Your task to perform on an android device: open app "Adobe Acrobat Reader" Image 0: 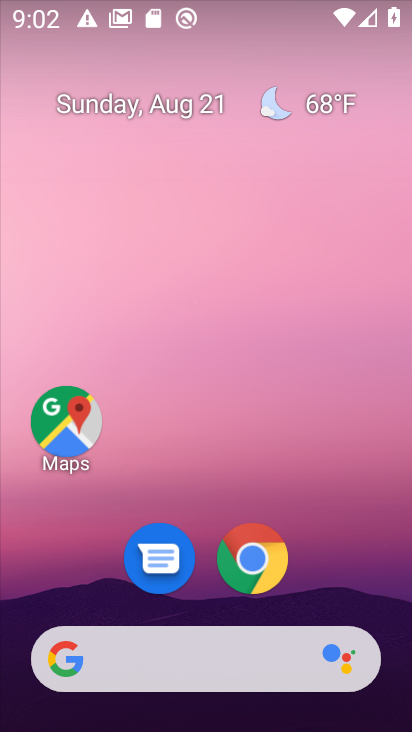
Step 0: drag from (145, 668) to (223, 78)
Your task to perform on an android device: open app "Adobe Acrobat Reader" Image 1: 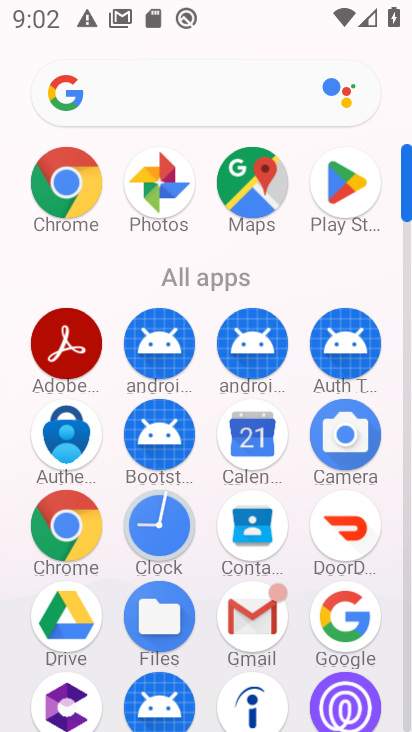
Step 1: click (328, 176)
Your task to perform on an android device: open app "Adobe Acrobat Reader" Image 2: 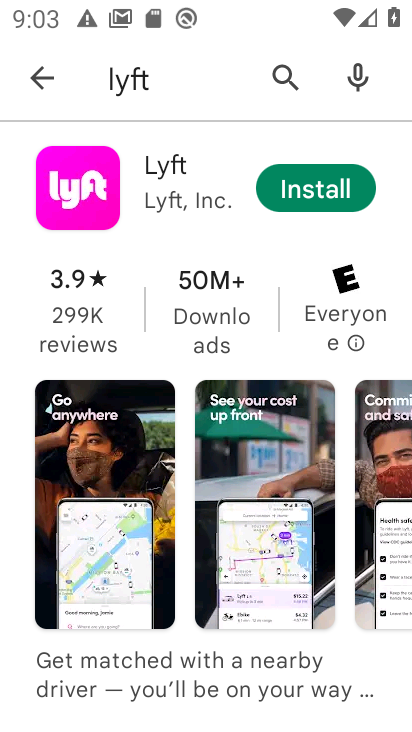
Step 2: click (290, 88)
Your task to perform on an android device: open app "Adobe Acrobat Reader" Image 3: 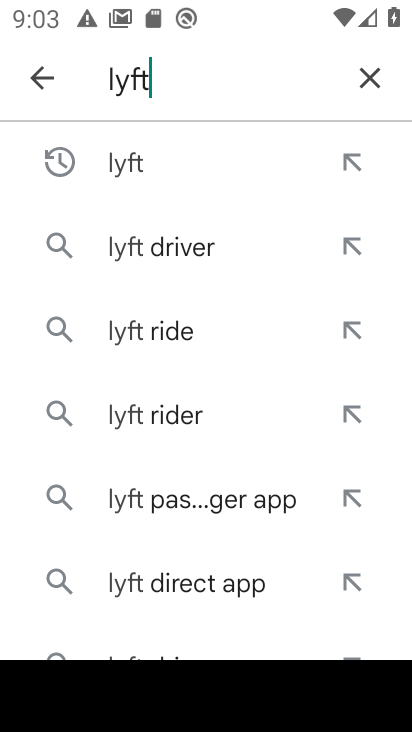
Step 3: click (357, 83)
Your task to perform on an android device: open app "Adobe Acrobat Reader" Image 4: 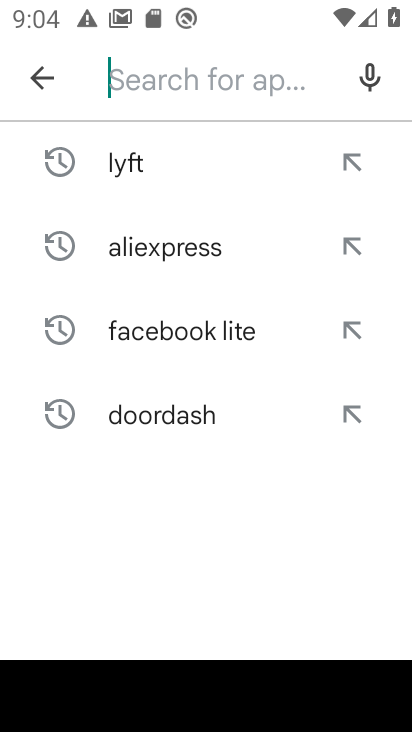
Step 4: type "adobe acrobat"
Your task to perform on an android device: open app "Adobe Acrobat Reader" Image 5: 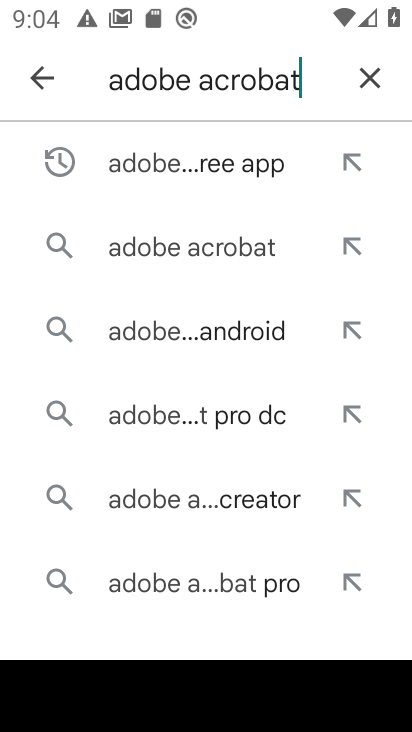
Step 5: click (182, 177)
Your task to perform on an android device: open app "Adobe Acrobat Reader" Image 6: 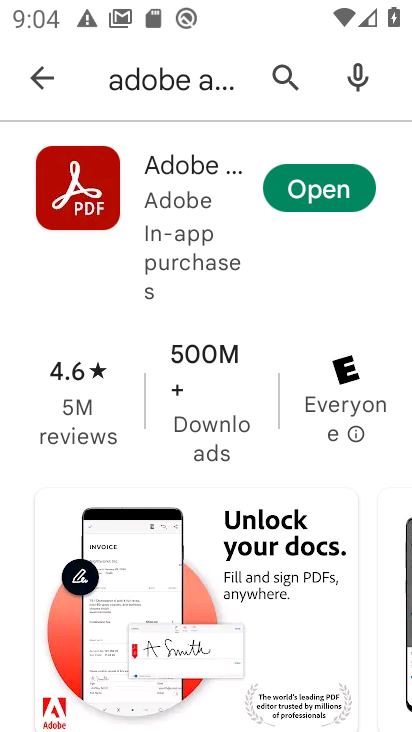
Step 6: task complete